Your task to perform on an android device: Open notification settings Image 0: 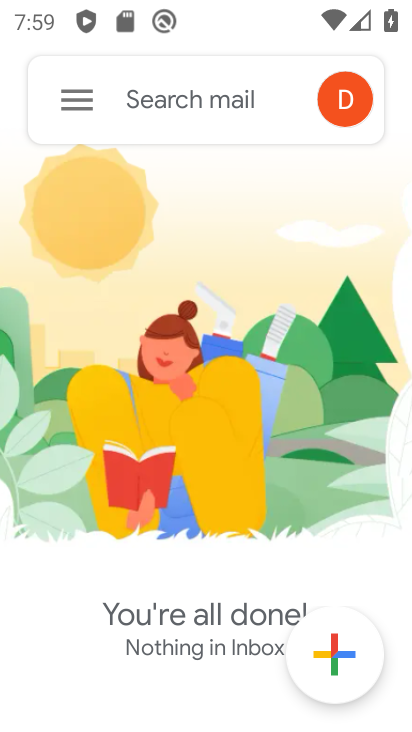
Step 0: press home button
Your task to perform on an android device: Open notification settings Image 1: 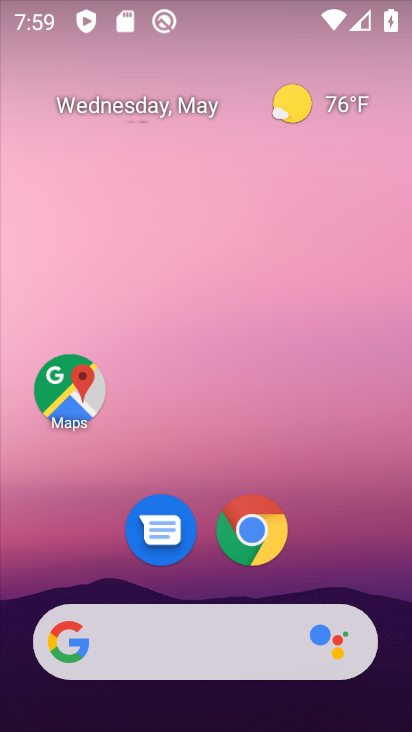
Step 1: drag from (367, 548) to (351, 136)
Your task to perform on an android device: Open notification settings Image 2: 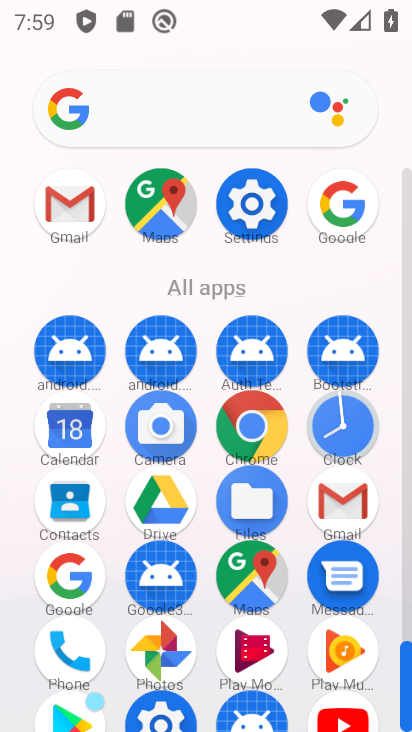
Step 2: click (234, 204)
Your task to perform on an android device: Open notification settings Image 3: 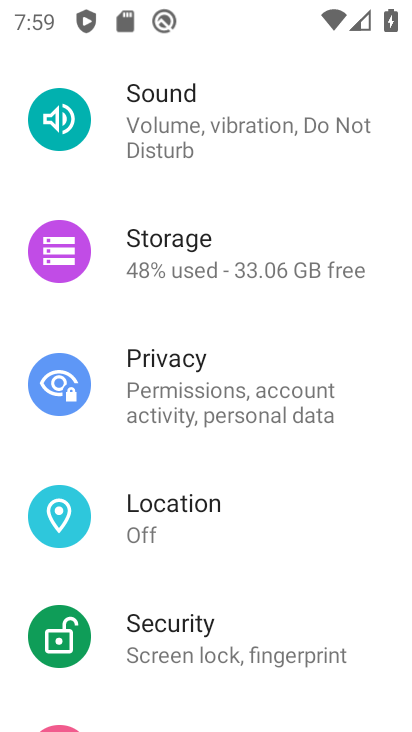
Step 3: drag from (234, 204) to (212, 562)
Your task to perform on an android device: Open notification settings Image 4: 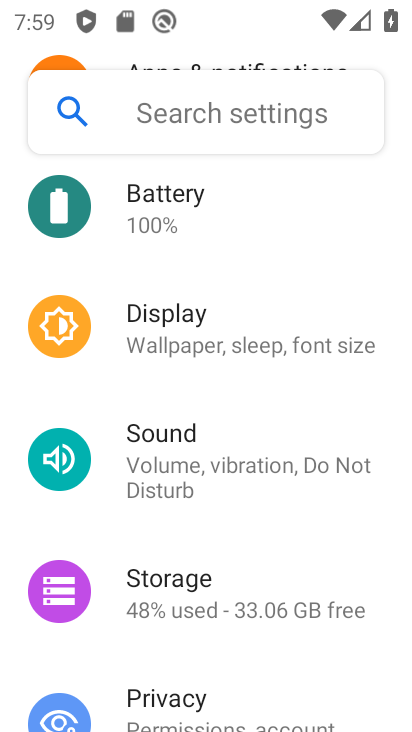
Step 4: drag from (222, 250) to (277, 581)
Your task to perform on an android device: Open notification settings Image 5: 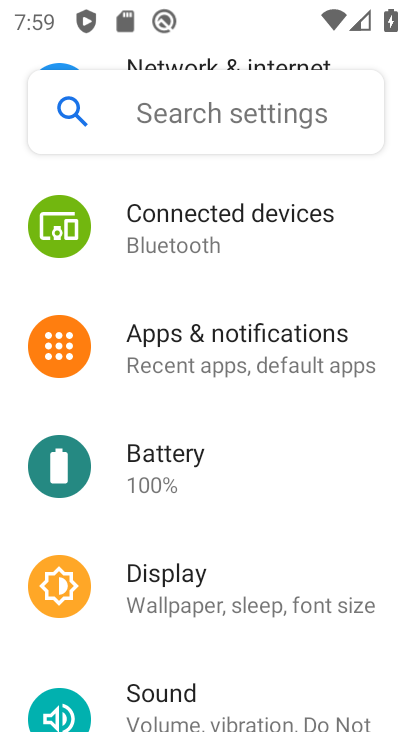
Step 5: click (226, 336)
Your task to perform on an android device: Open notification settings Image 6: 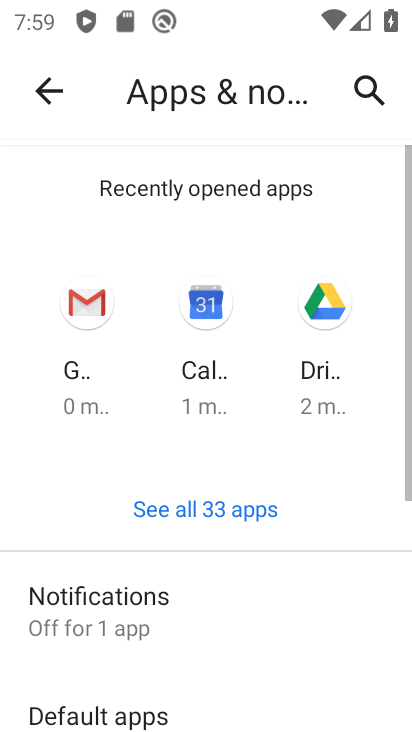
Step 6: click (113, 618)
Your task to perform on an android device: Open notification settings Image 7: 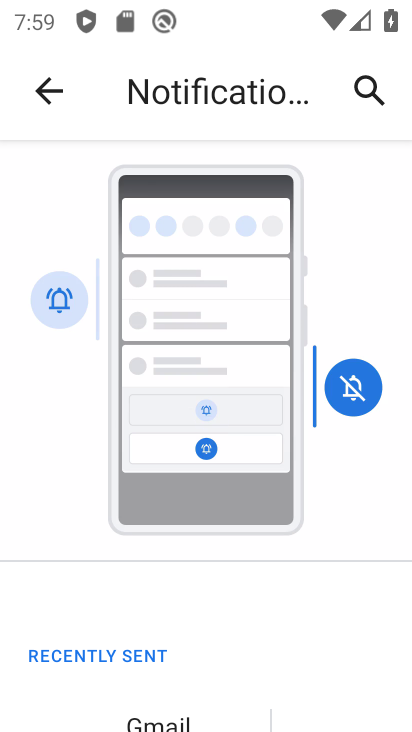
Step 7: task complete